Your task to perform on an android device: toggle airplane mode Image 0: 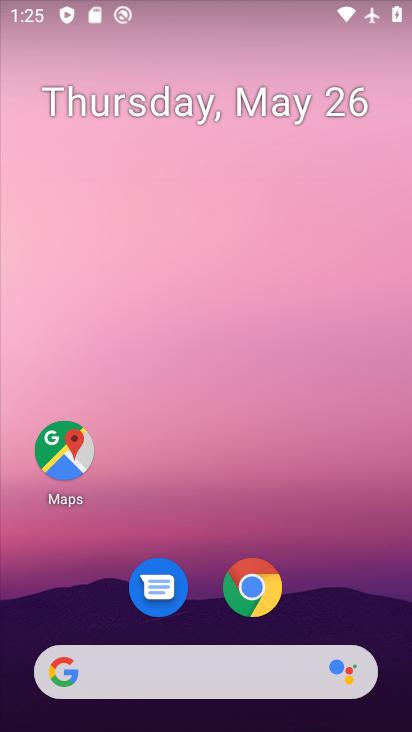
Step 0: drag from (335, 581) to (241, 43)
Your task to perform on an android device: toggle airplane mode Image 1: 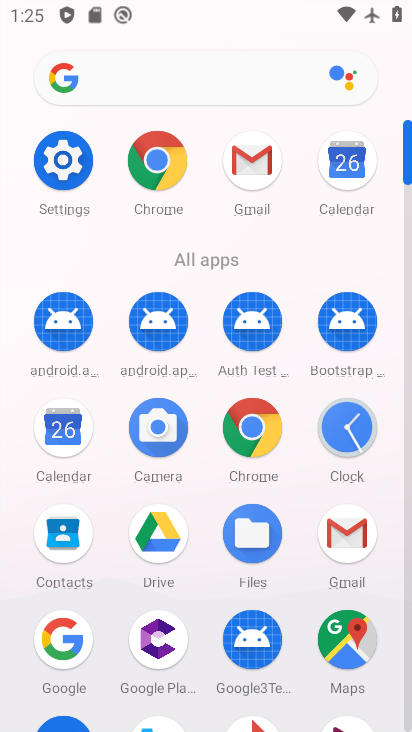
Step 1: drag from (8, 614) to (30, 245)
Your task to perform on an android device: toggle airplane mode Image 2: 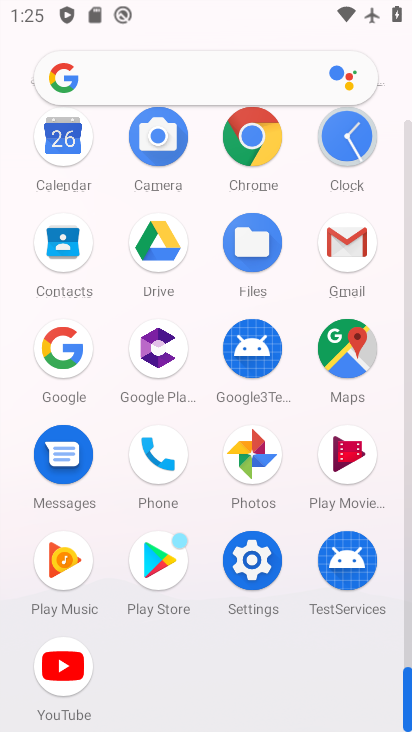
Step 2: click (248, 557)
Your task to perform on an android device: toggle airplane mode Image 3: 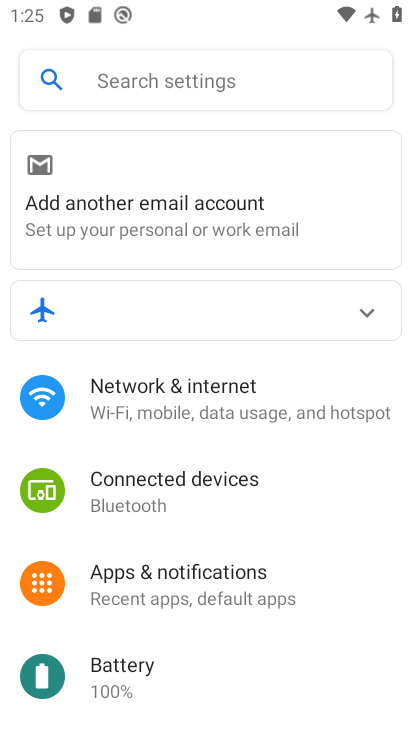
Step 3: drag from (286, 600) to (278, 137)
Your task to perform on an android device: toggle airplane mode Image 4: 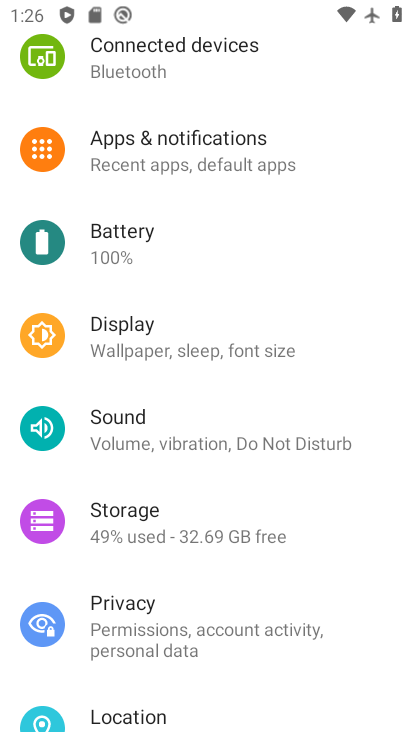
Step 4: drag from (263, 186) to (252, 612)
Your task to perform on an android device: toggle airplane mode Image 5: 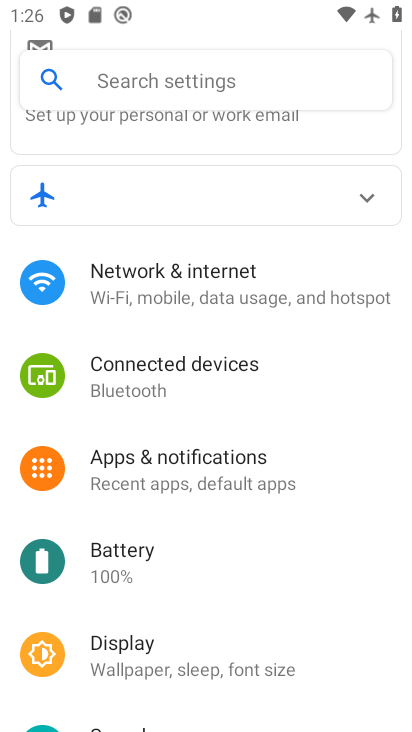
Step 5: click (240, 301)
Your task to perform on an android device: toggle airplane mode Image 6: 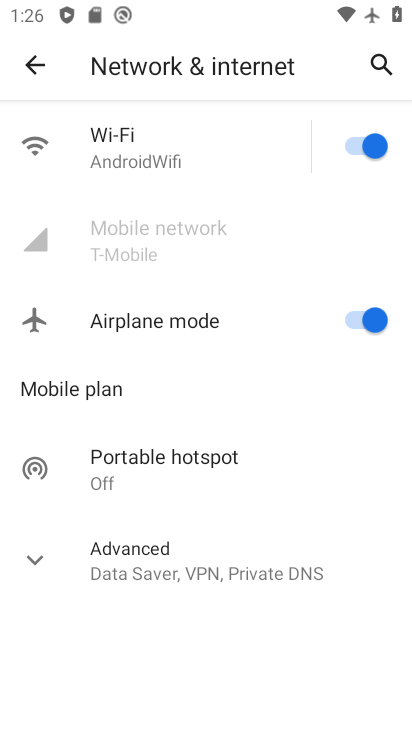
Step 6: click (362, 327)
Your task to perform on an android device: toggle airplane mode Image 7: 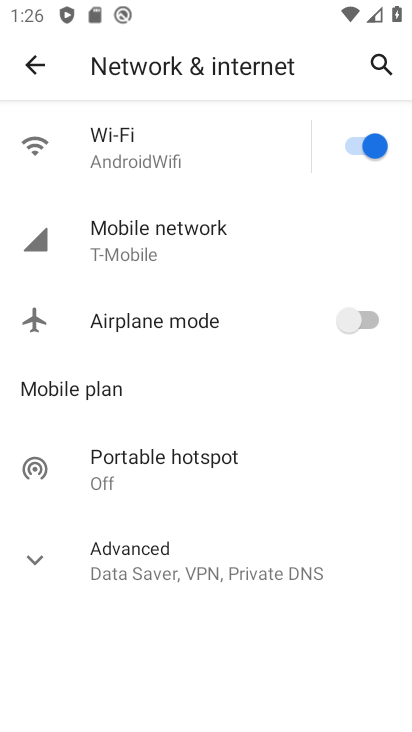
Step 7: task complete